Your task to perform on an android device: Check the weather Image 0: 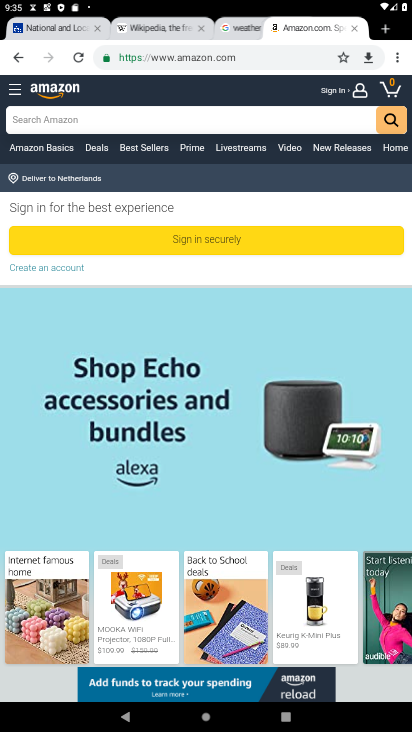
Step 0: press home button
Your task to perform on an android device: Check the weather Image 1: 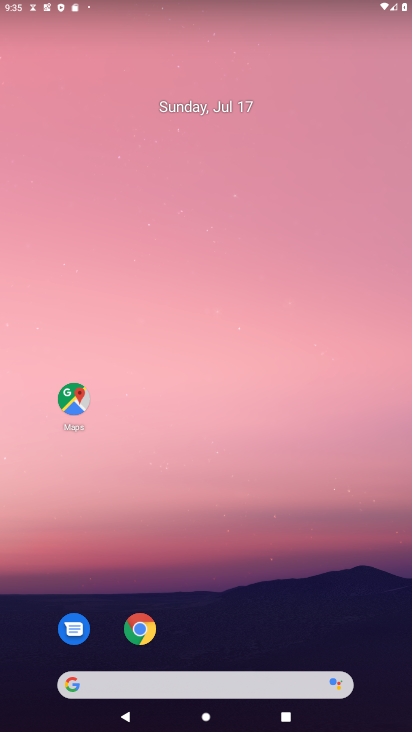
Step 1: drag from (232, 631) to (227, 28)
Your task to perform on an android device: Check the weather Image 2: 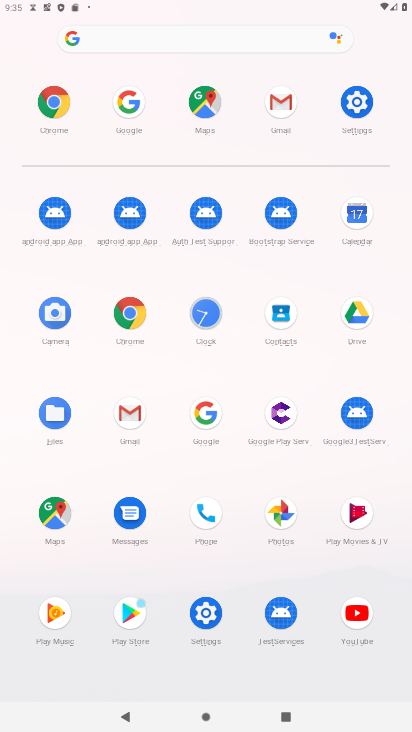
Step 2: click (202, 414)
Your task to perform on an android device: Check the weather Image 3: 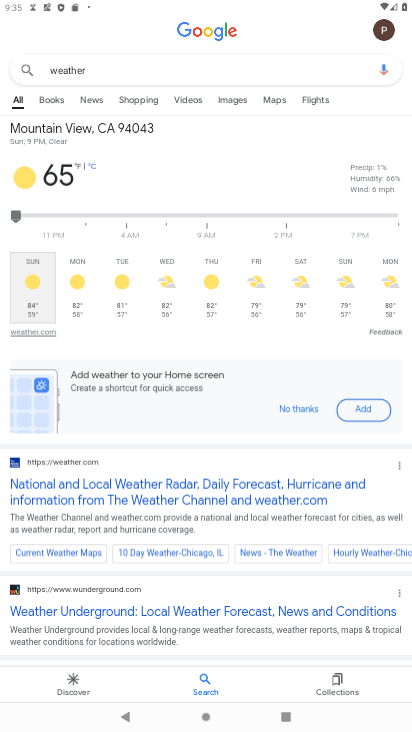
Step 3: task complete